Your task to perform on an android device: turn on translation in the chrome app Image 0: 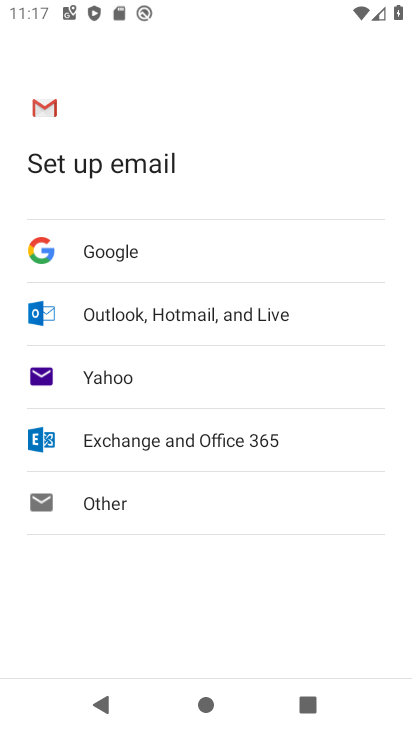
Step 0: press home button
Your task to perform on an android device: turn on translation in the chrome app Image 1: 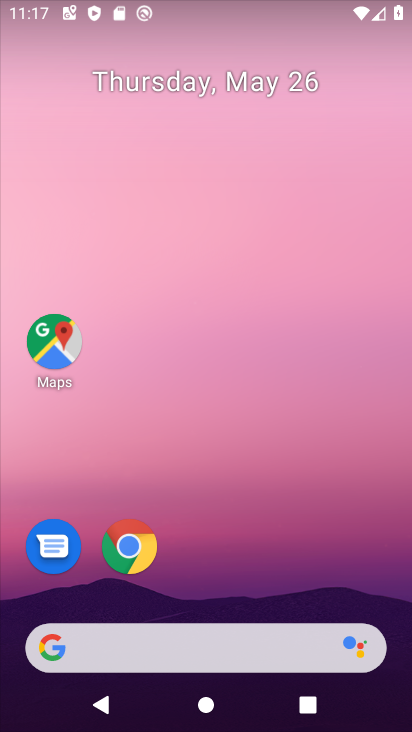
Step 1: click (132, 548)
Your task to perform on an android device: turn on translation in the chrome app Image 2: 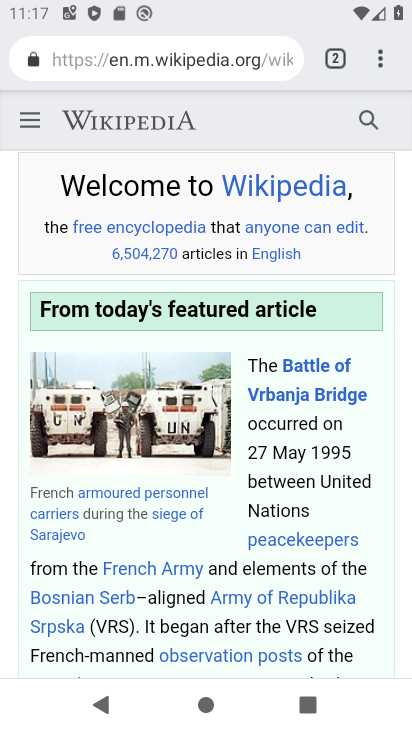
Step 2: click (371, 51)
Your task to perform on an android device: turn on translation in the chrome app Image 3: 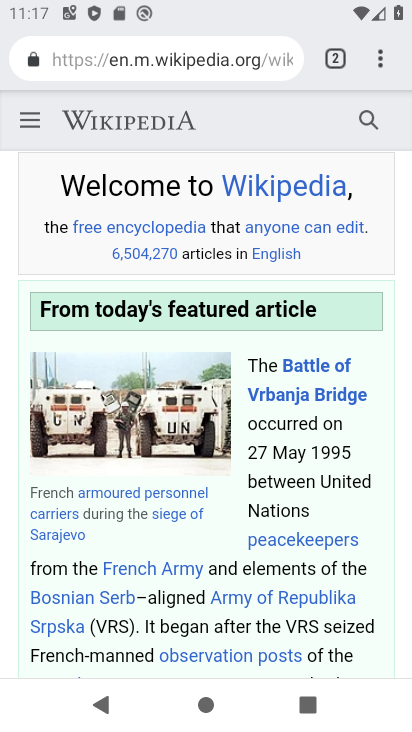
Step 3: click (371, 52)
Your task to perform on an android device: turn on translation in the chrome app Image 4: 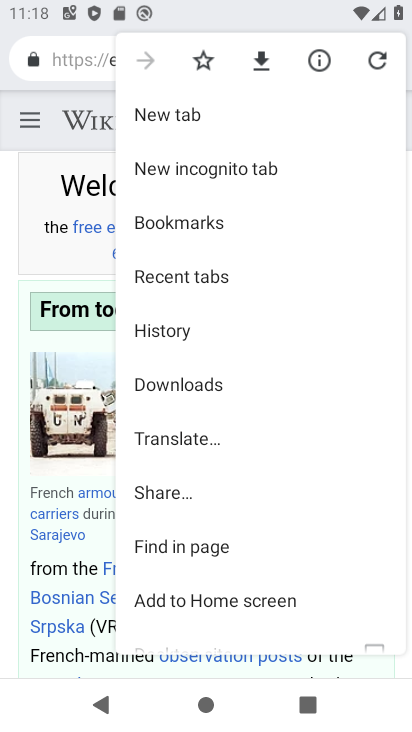
Step 4: drag from (239, 619) to (232, 283)
Your task to perform on an android device: turn on translation in the chrome app Image 5: 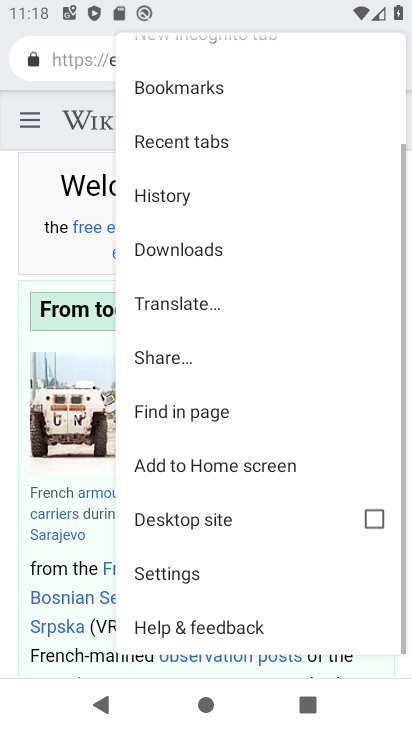
Step 5: click (163, 588)
Your task to perform on an android device: turn on translation in the chrome app Image 6: 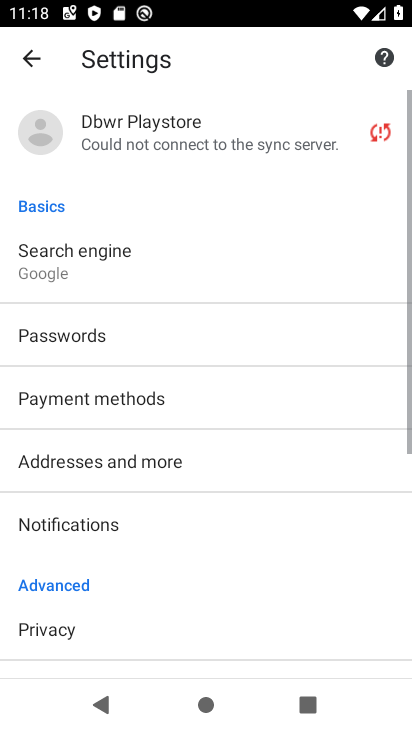
Step 6: drag from (194, 572) to (219, 178)
Your task to perform on an android device: turn on translation in the chrome app Image 7: 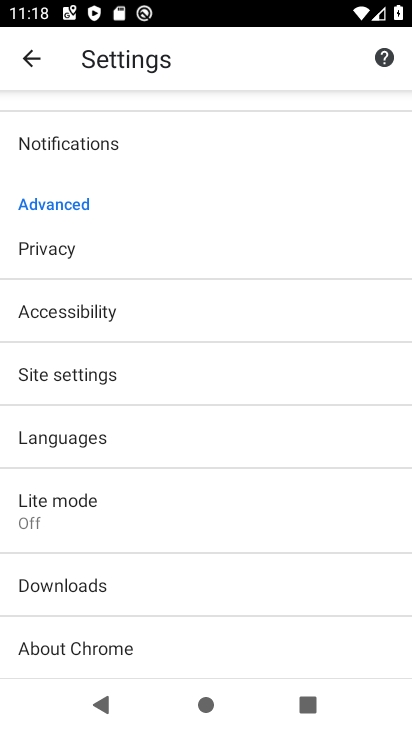
Step 7: click (75, 439)
Your task to perform on an android device: turn on translation in the chrome app Image 8: 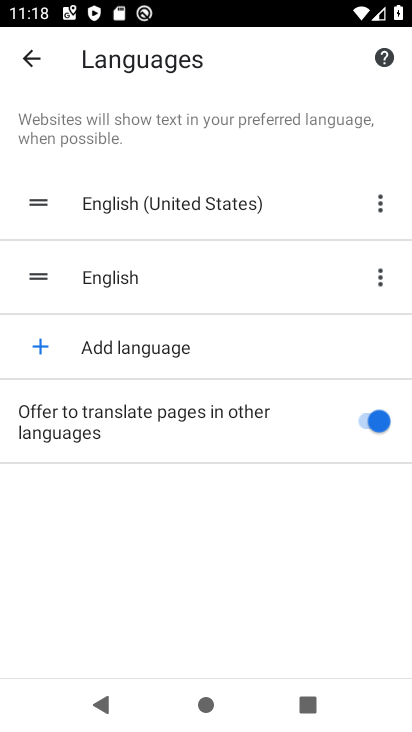
Step 8: task complete